Your task to perform on an android device: toggle airplane mode Image 0: 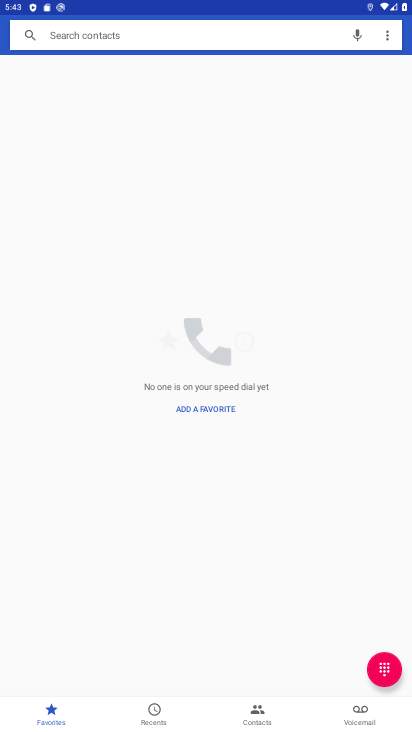
Step 0: press home button
Your task to perform on an android device: toggle airplane mode Image 1: 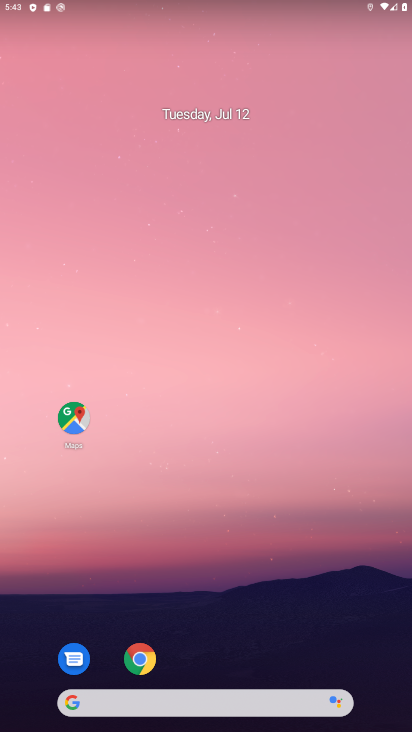
Step 1: drag from (232, 641) to (256, 43)
Your task to perform on an android device: toggle airplane mode Image 2: 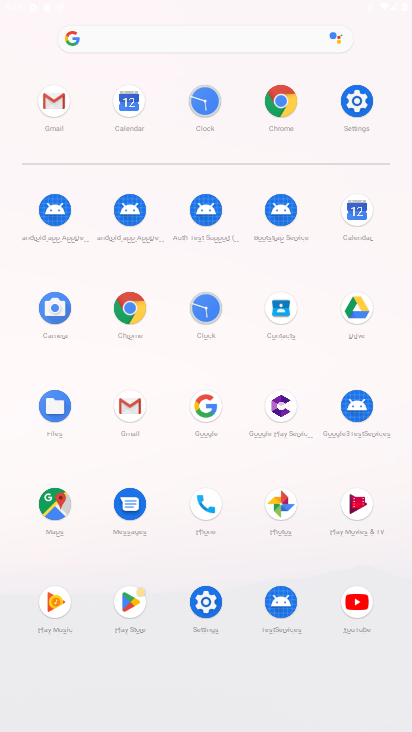
Step 2: click (351, 108)
Your task to perform on an android device: toggle airplane mode Image 3: 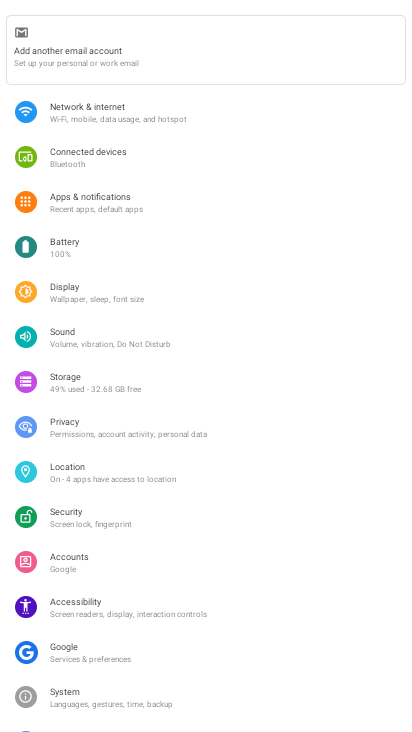
Step 3: click (99, 107)
Your task to perform on an android device: toggle airplane mode Image 4: 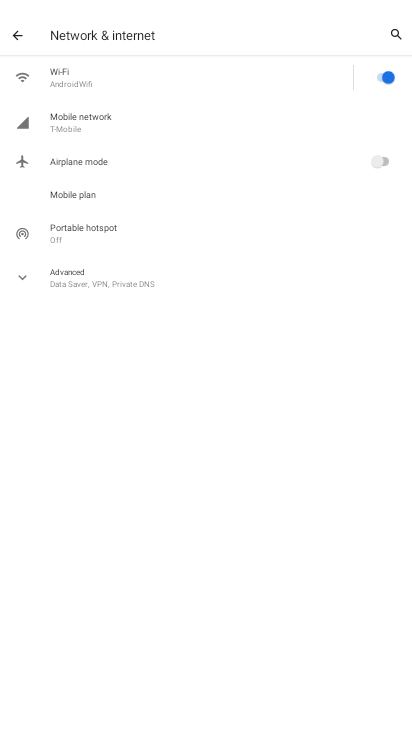
Step 4: click (96, 164)
Your task to perform on an android device: toggle airplane mode Image 5: 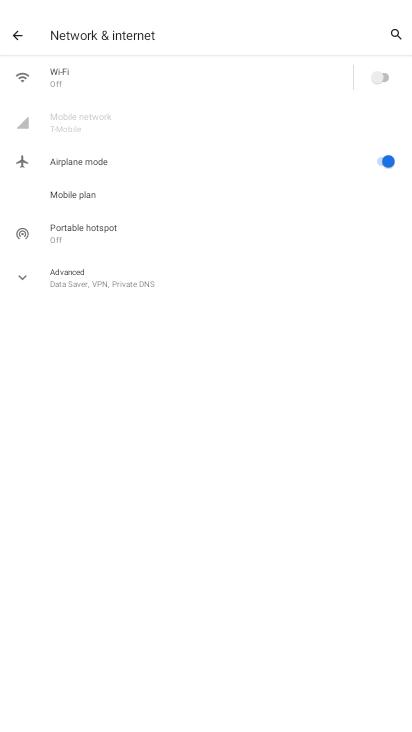
Step 5: task complete